Your task to perform on an android device: Open the phone app and click the voicemail tab. Image 0: 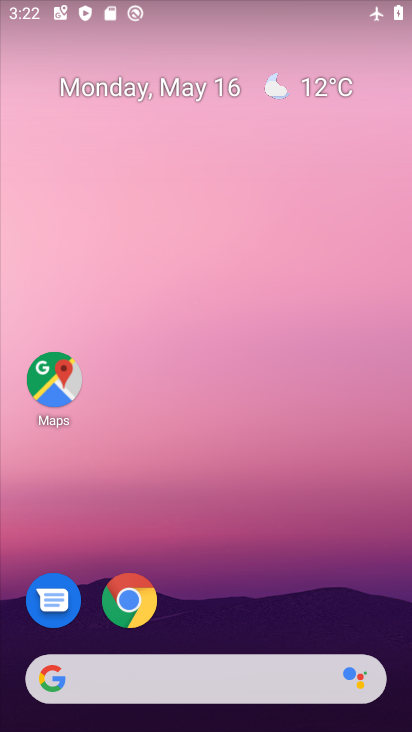
Step 0: drag from (203, 648) to (175, 0)
Your task to perform on an android device: Open the phone app and click the voicemail tab. Image 1: 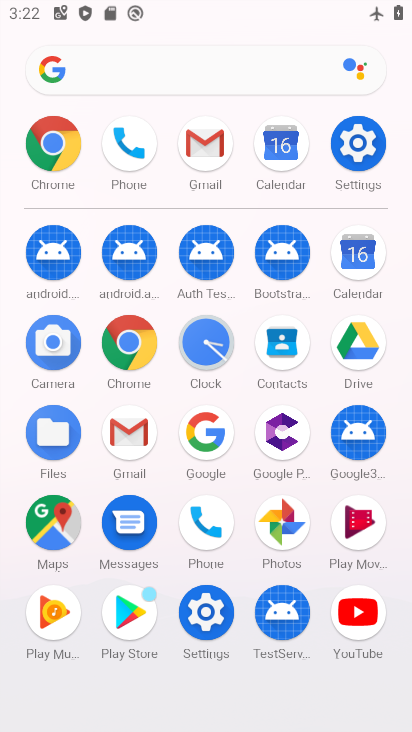
Step 1: click (214, 525)
Your task to perform on an android device: Open the phone app and click the voicemail tab. Image 2: 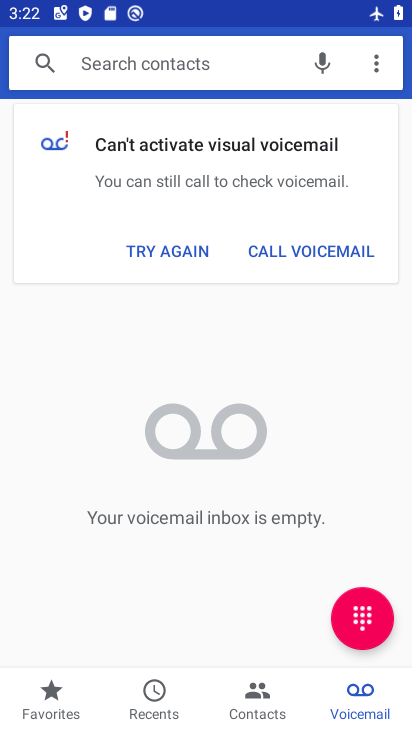
Step 2: click (354, 691)
Your task to perform on an android device: Open the phone app and click the voicemail tab. Image 3: 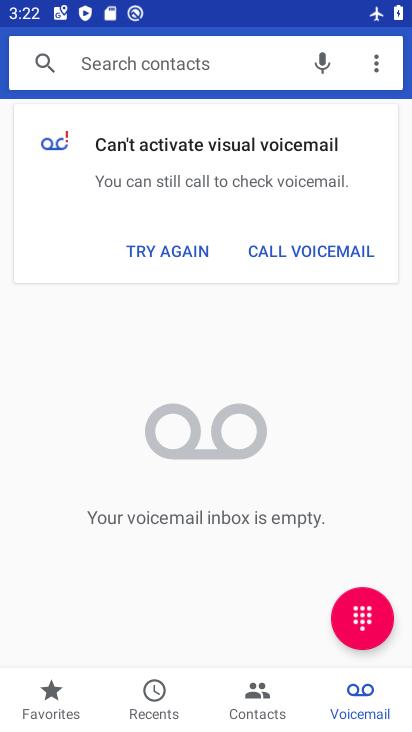
Step 3: task complete